Your task to perform on an android device: set the timer Image 0: 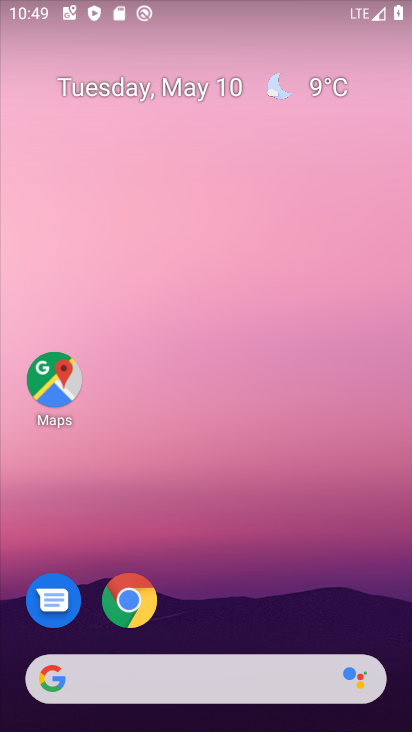
Step 0: drag from (294, 571) to (257, 103)
Your task to perform on an android device: set the timer Image 1: 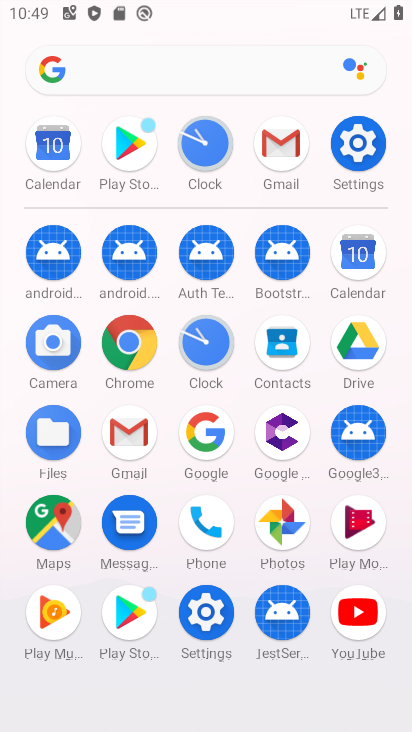
Step 1: click (213, 151)
Your task to perform on an android device: set the timer Image 2: 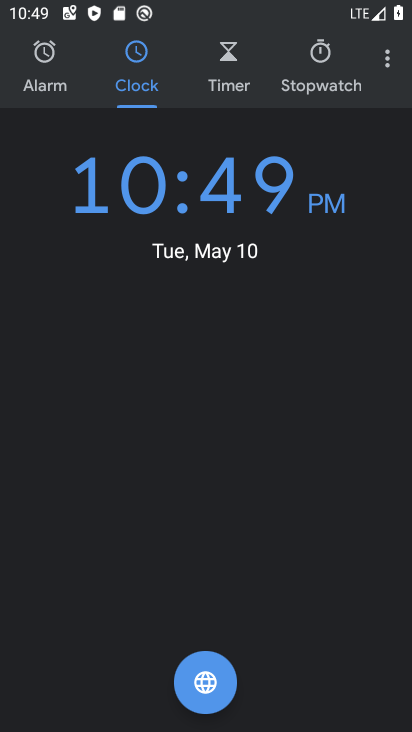
Step 2: click (215, 52)
Your task to perform on an android device: set the timer Image 3: 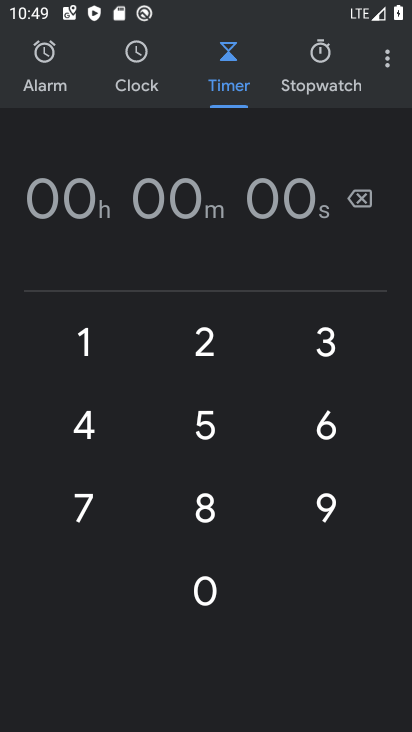
Step 3: click (97, 343)
Your task to perform on an android device: set the timer Image 4: 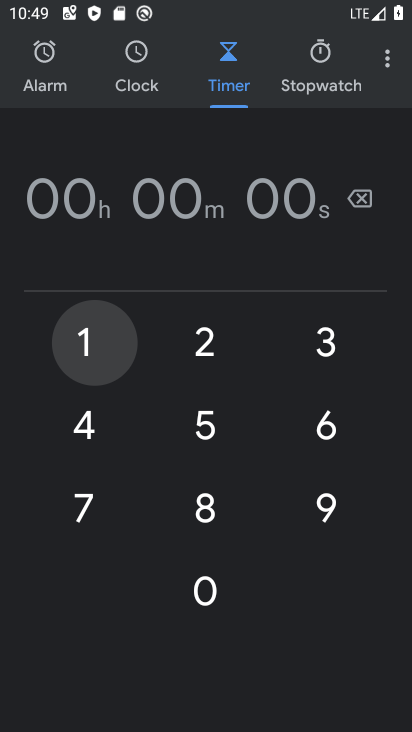
Step 4: click (96, 342)
Your task to perform on an android device: set the timer Image 5: 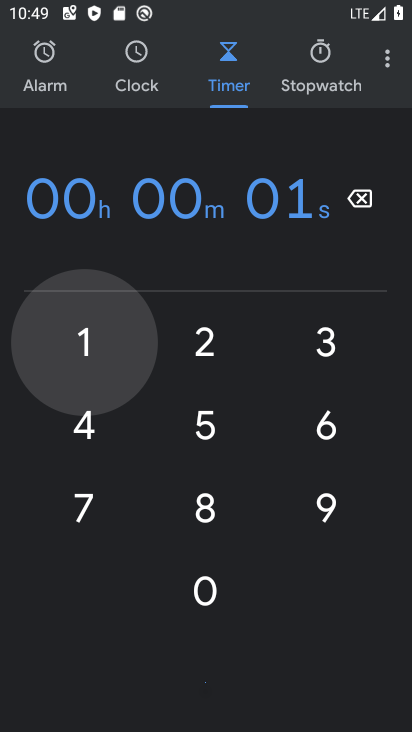
Step 5: click (96, 340)
Your task to perform on an android device: set the timer Image 6: 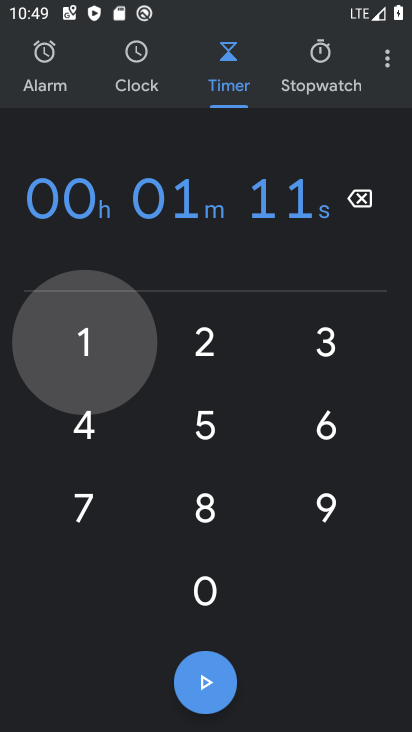
Step 6: click (97, 339)
Your task to perform on an android device: set the timer Image 7: 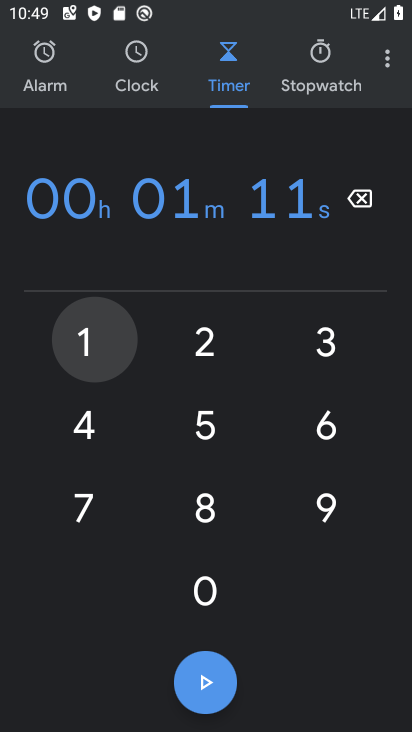
Step 7: click (97, 339)
Your task to perform on an android device: set the timer Image 8: 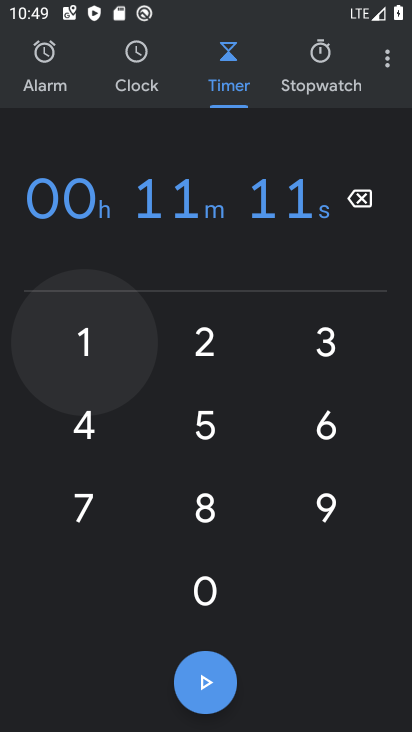
Step 8: click (97, 339)
Your task to perform on an android device: set the timer Image 9: 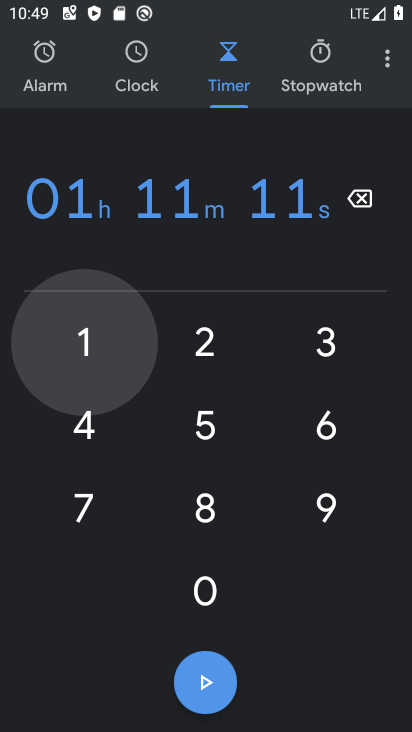
Step 9: click (98, 339)
Your task to perform on an android device: set the timer Image 10: 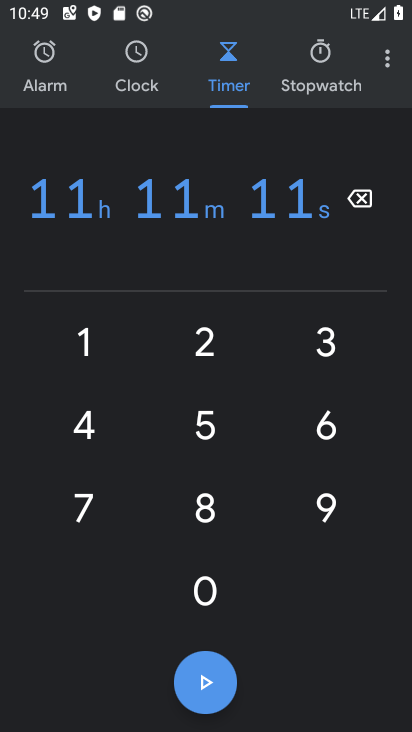
Step 10: click (206, 678)
Your task to perform on an android device: set the timer Image 11: 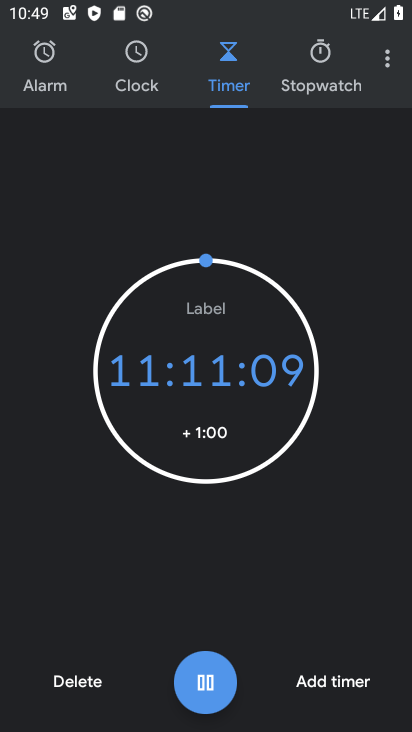
Step 11: task complete